Your task to perform on an android device: turn off airplane mode Image 0: 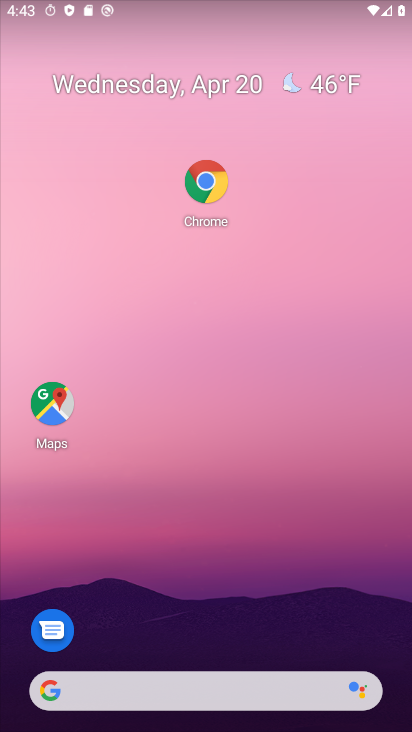
Step 0: drag from (186, 625) to (259, 486)
Your task to perform on an android device: turn off airplane mode Image 1: 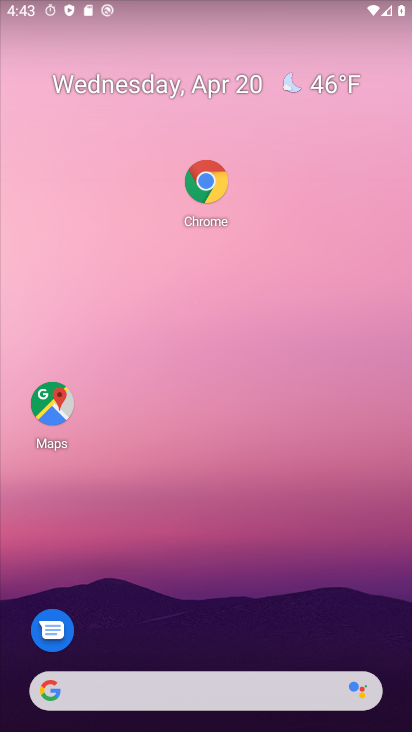
Step 1: drag from (211, 670) to (399, 256)
Your task to perform on an android device: turn off airplane mode Image 2: 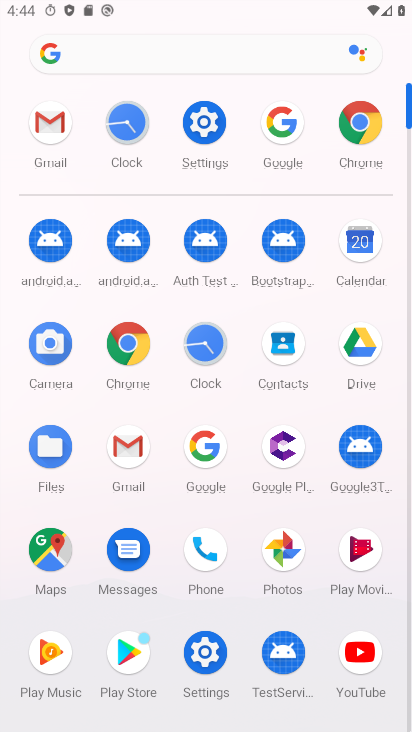
Step 2: click (216, 103)
Your task to perform on an android device: turn off airplane mode Image 3: 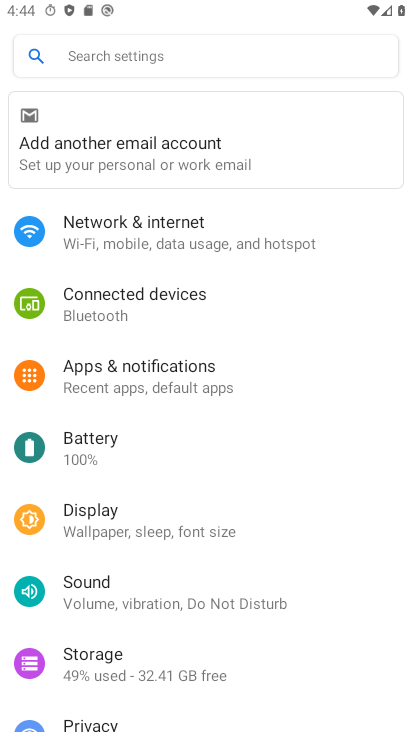
Step 3: click (106, 248)
Your task to perform on an android device: turn off airplane mode Image 4: 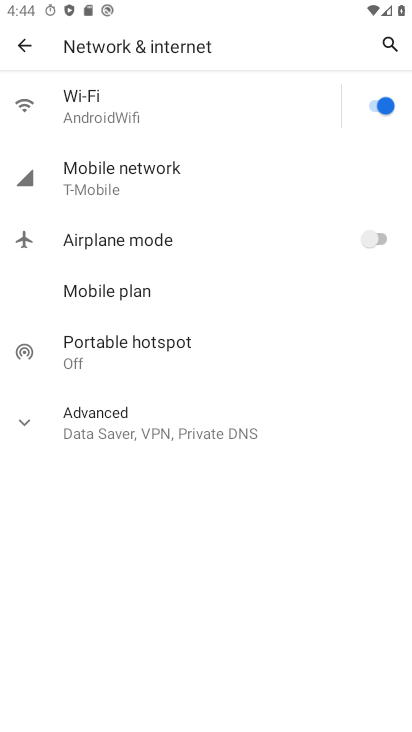
Step 4: click (83, 424)
Your task to perform on an android device: turn off airplane mode Image 5: 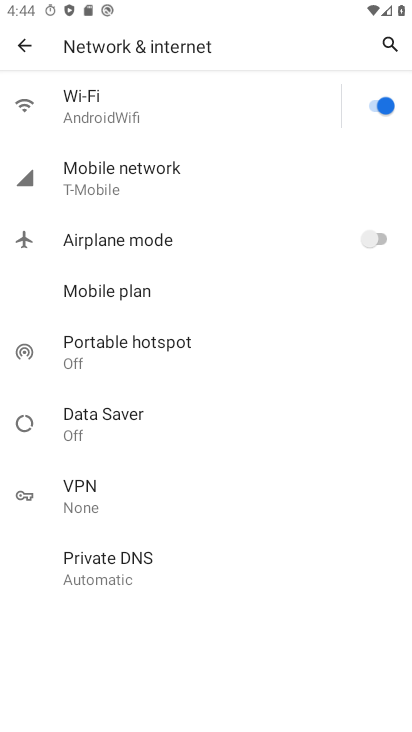
Step 5: task complete